Your task to perform on an android device: What is the recent news? Image 0: 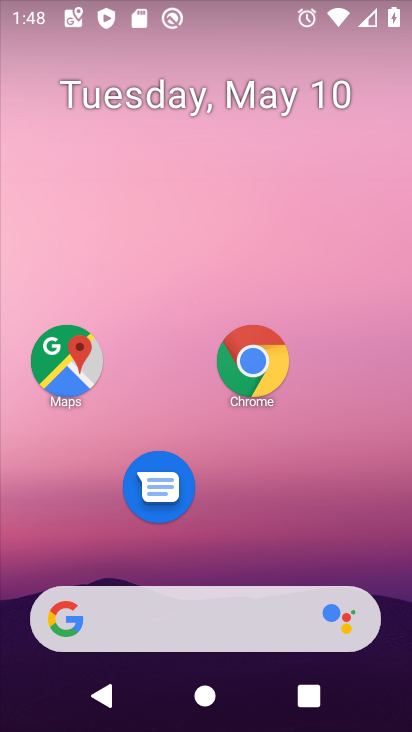
Step 0: click (259, 353)
Your task to perform on an android device: What is the recent news? Image 1: 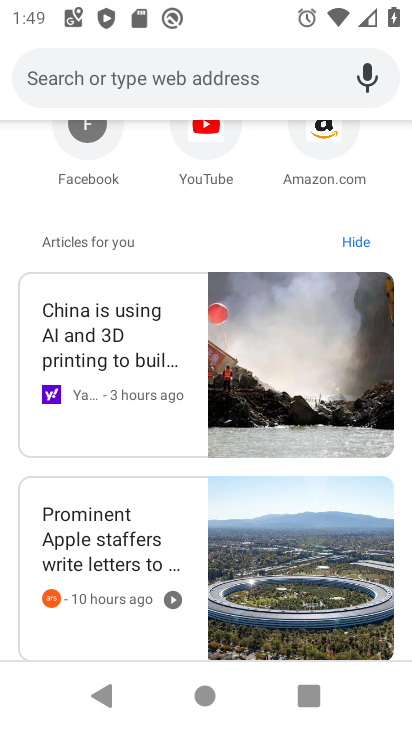
Step 1: task complete